Your task to perform on an android device: Go to internet settings Image 0: 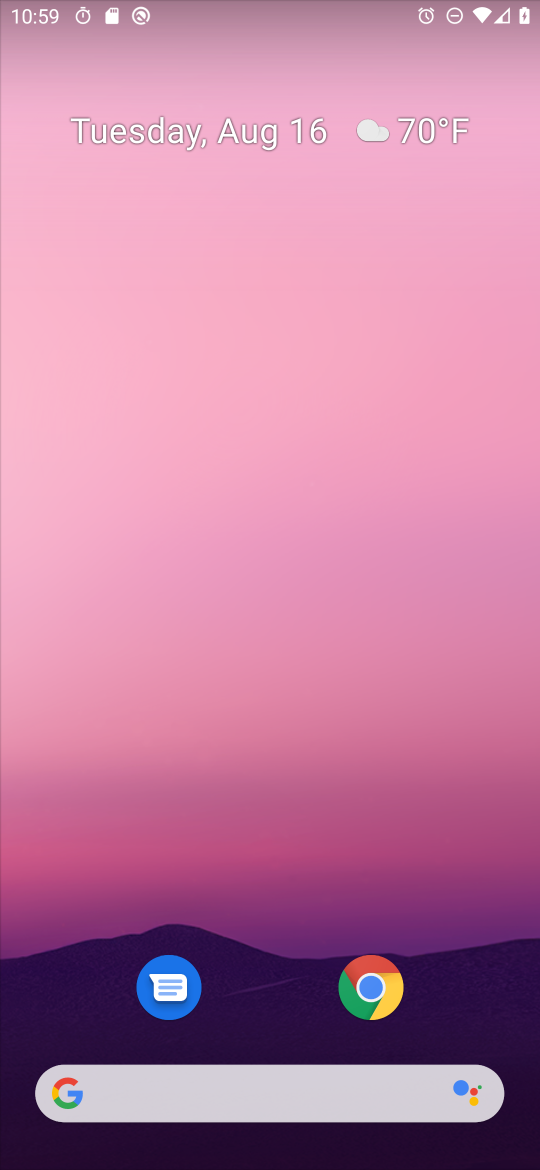
Step 0: drag from (14, 1131) to (242, 364)
Your task to perform on an android device: Go to internet settings Image 1: 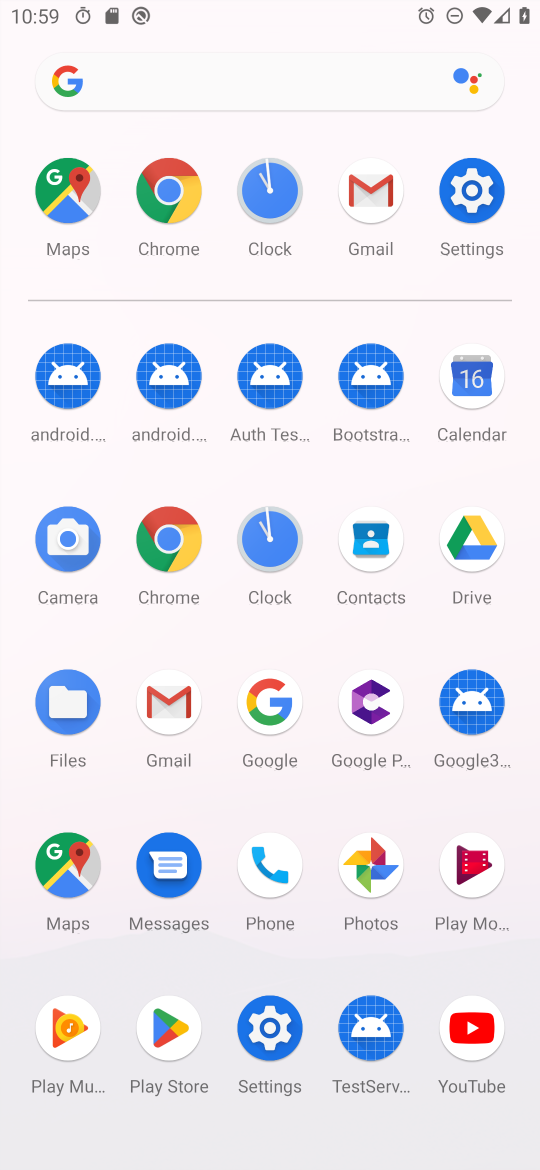
Step 1: click (467, 228)
Your task to perform on an android device: Go to internet settings Image 2: 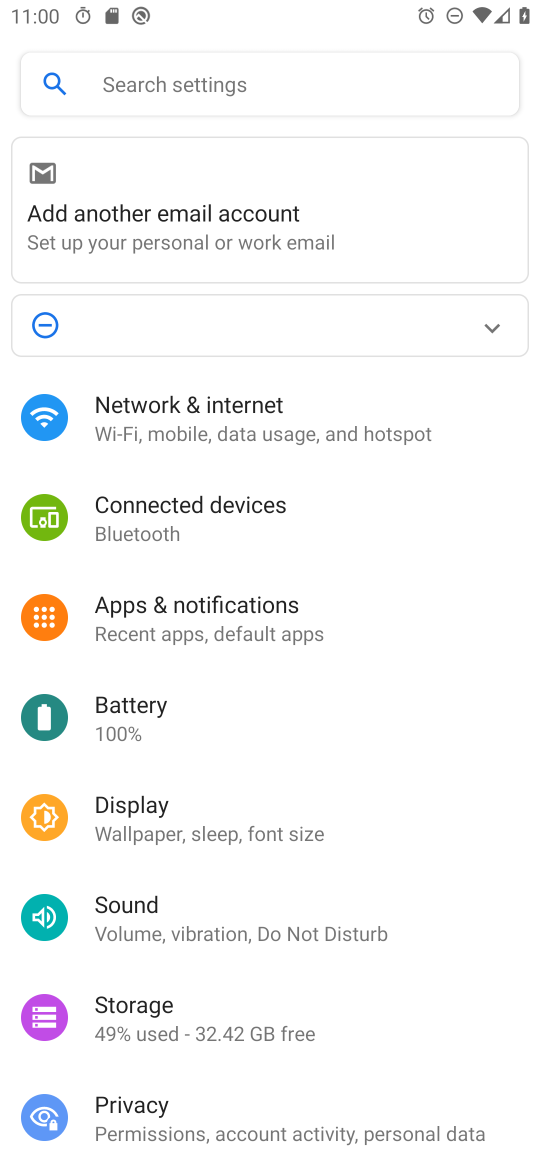
Step 2: click (220, 406)
Your task to perform on an android device: Go to internet settings Image 3: 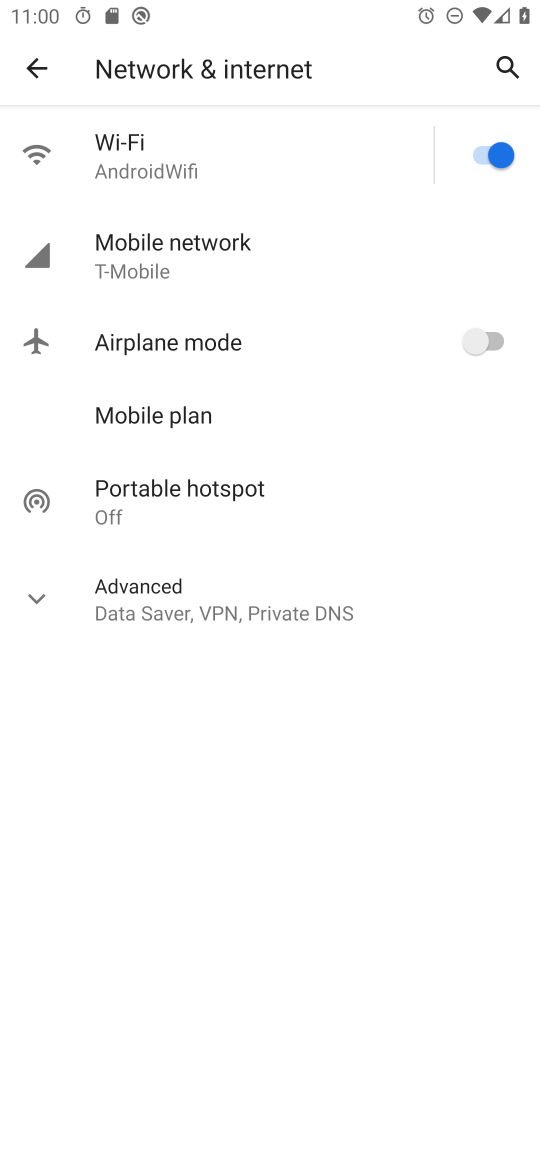
Step 3: task complete